Your task to perform on an android device: Open calendar and show me the second week of next month Image 0: 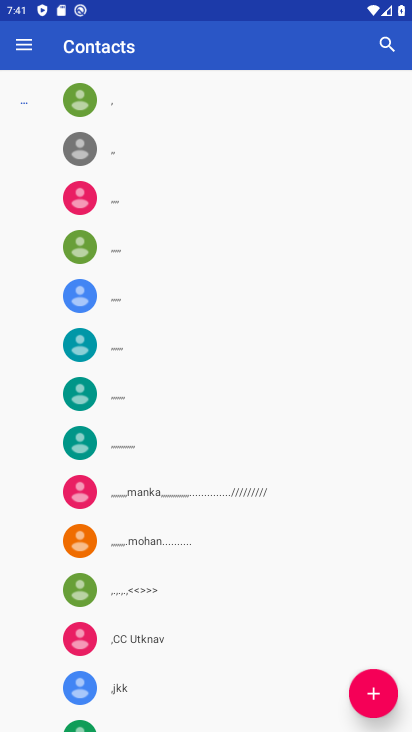
Step 0: drag from (265, 576) to (312, 130)
Your task to perform on an android device: Open calendar and show me the second week of next month Image 1: 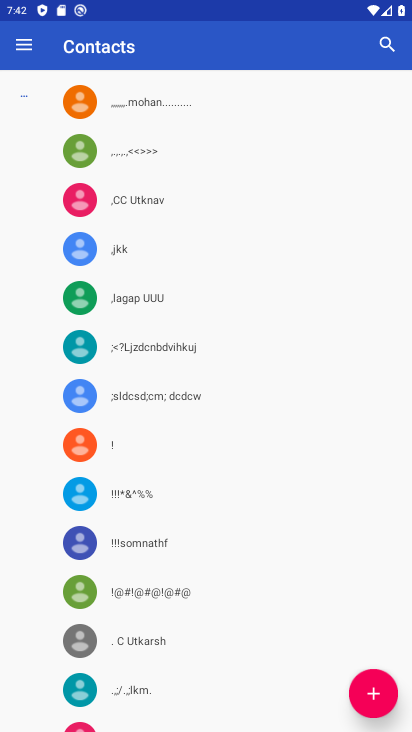
Step 1: press home button
Your task to perform on an android device: Open calendar and show me the second week of next month Image 2: 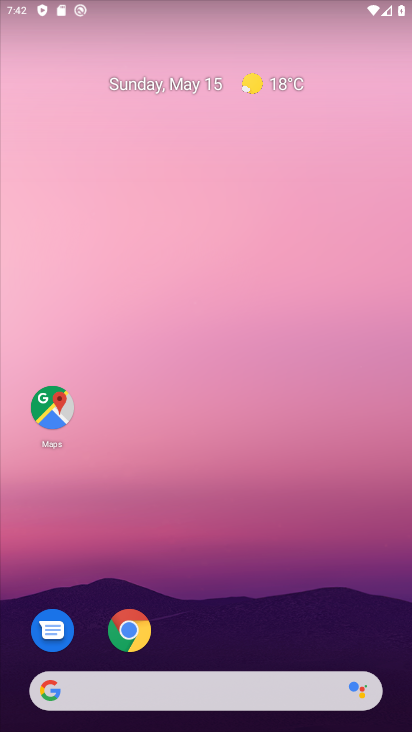
Step 2: drag from (208, 629) to (298, 65)
Your task to perform on an android device: Open calendar and show me the second week of next month Image 3: 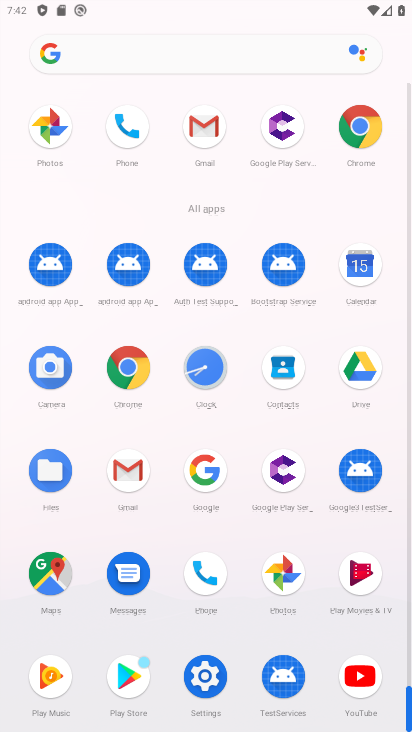
Step 3: click (364, 258)
Your task to perform on an android device: Open calendar and show me the second week of next month Image 4: 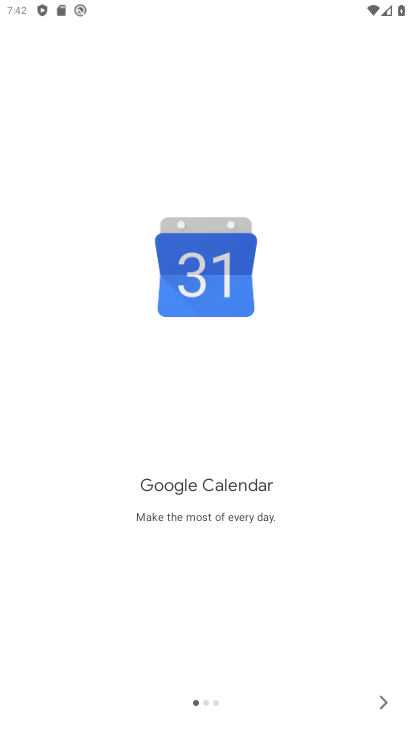
Step 4: click (384, 699)
Your task to perform on an android device: Open calendar and show me the second week of next month Image 5: 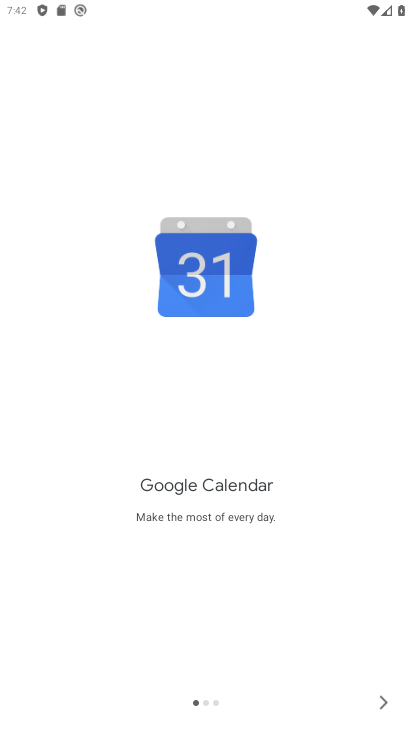
Step 5: click (384, 699)
Your task to perform on an android device: Open calendar and show me the second week of next month Image 6: 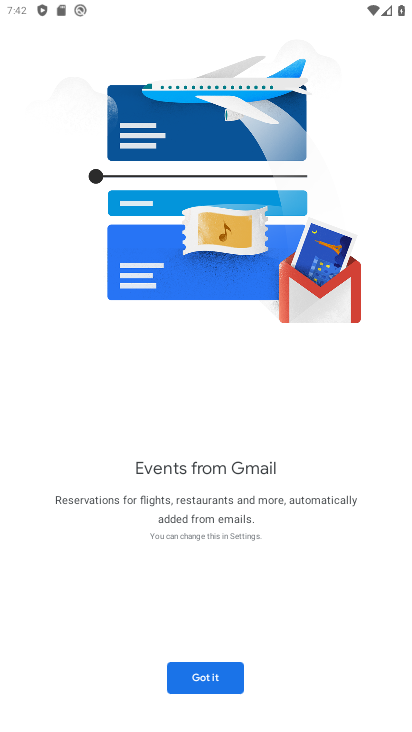
Step 6: click (384, 699)
Your task to perform on an android device: Open calendar and show me the second week of next month Image 7: 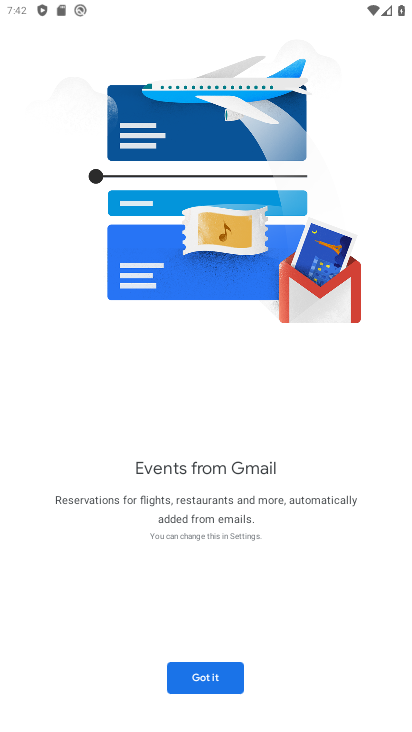
Step 7: click (221, 682)
Your task to perform on an android device: Open calendar and show me the second week of next month Image 8: 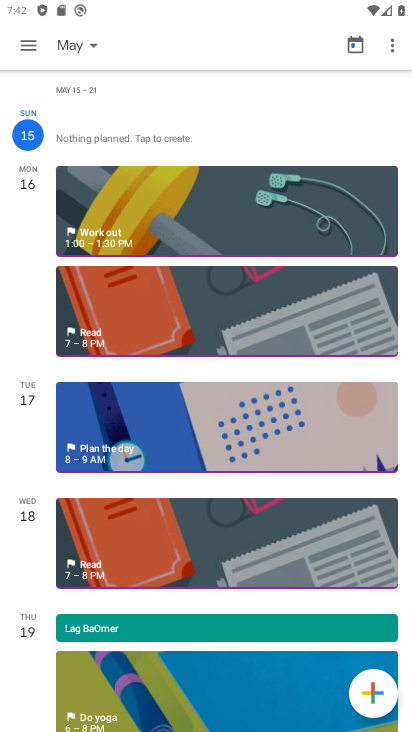
Step 8: click (81, 45)
Your task to perform on an android device: Open calendar and show me the second week of next month Image 9: 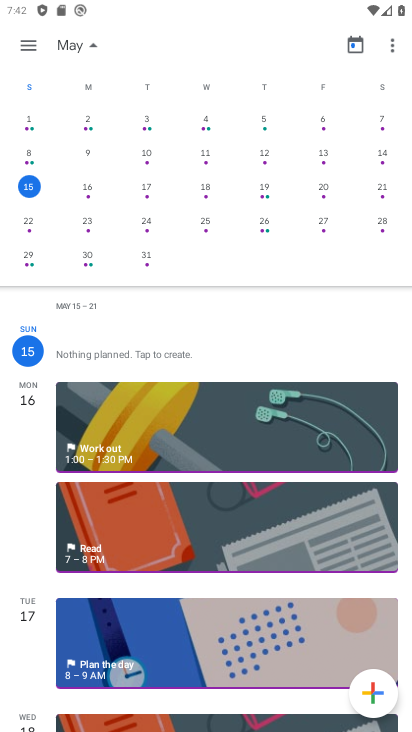
Step 9: drag from (364, 183) to (1, 173)
Your task to perform on an android device: Open calendar and show me the second week of next month Image 10: 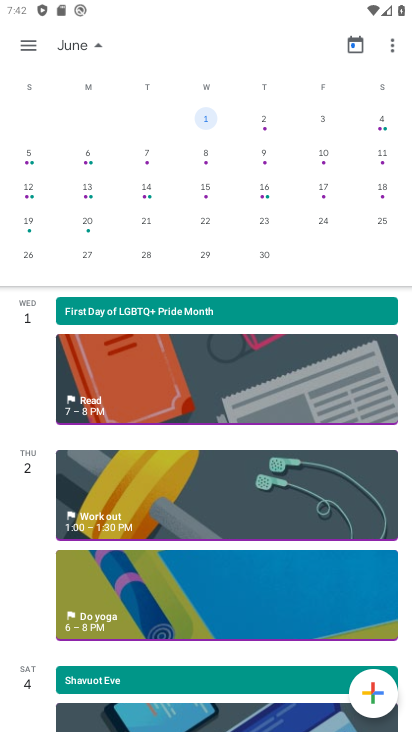
Step 10: click (258, 155)
Your task to perform on an android device: Open calendar and show me the second week of next month Image 11: 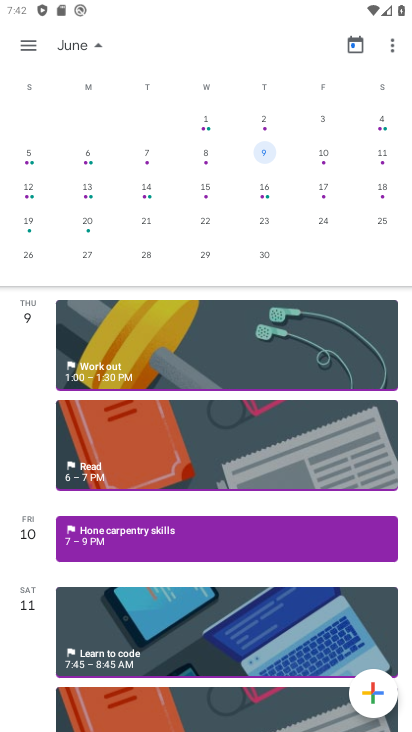
Step 11: task complete